Your task to perform on an android device: star an email in the gmail app Image 0: 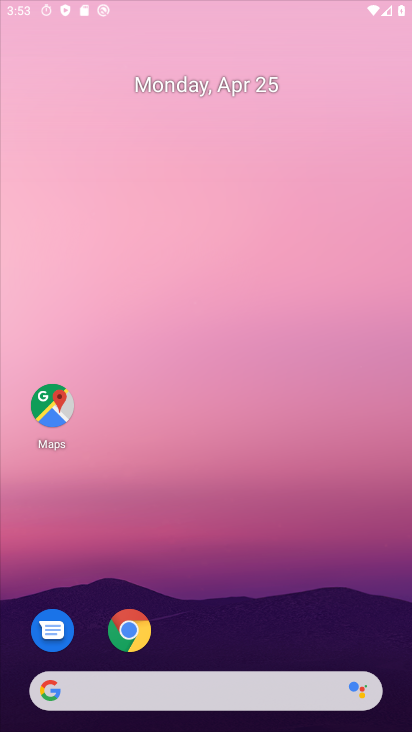
Step 0: drag from (333, 350) to (292, 78)
Your task to perform on an android device: star an email in the gmail app Image 1: 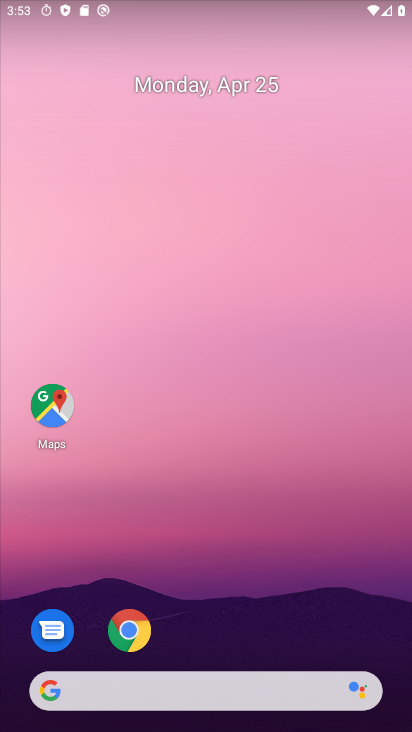
Step 1: drag from (338, 575) to (311, 44)
Your task to perform on an android device: star an email in the gmail app Image 2: 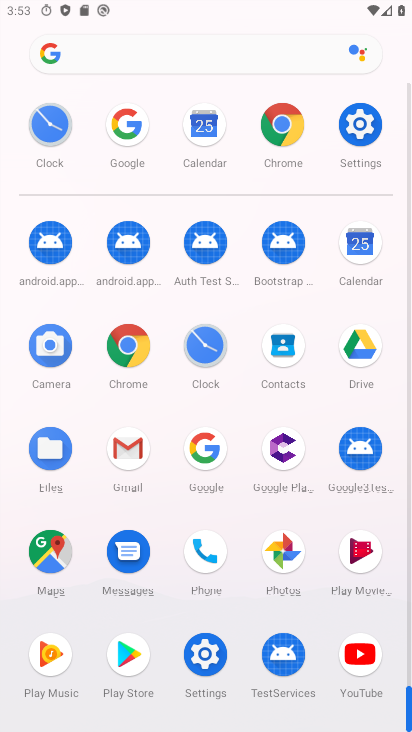
Step 2: click (135, 448)
Your task to perform on an android device: star an email in the gmail app Image 3: 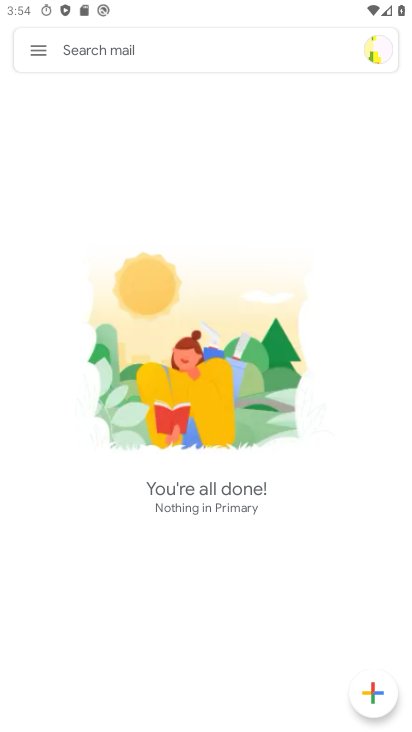
Step 3: click (43, 55)
Your task to perform on an android device: star an email in the gmail app Image 4: 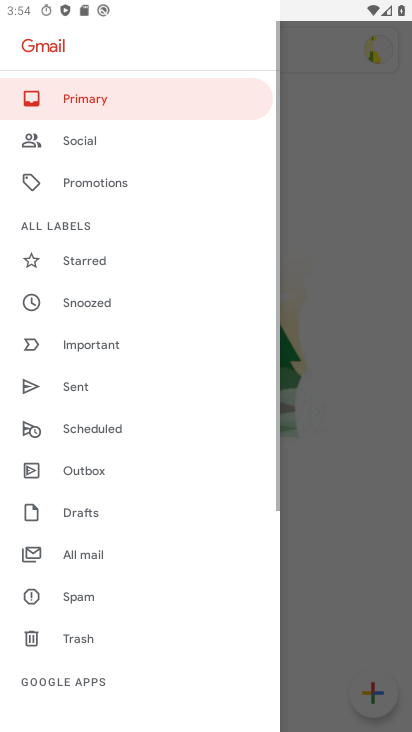
Step 4: drag from (96, 219) to (150, 594)
Your task to perform on an android device: star an email in the gmail app Image 5: 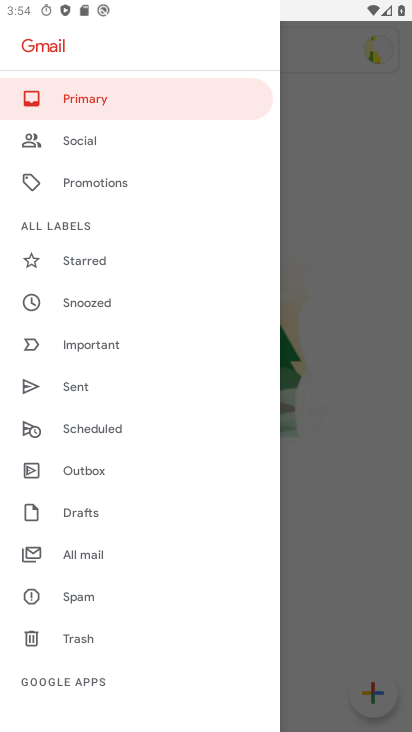
Step 5: drag from (160, 539) to (163, 172)
Your task to perform on an android device: star an email in the gmail app Image 6: 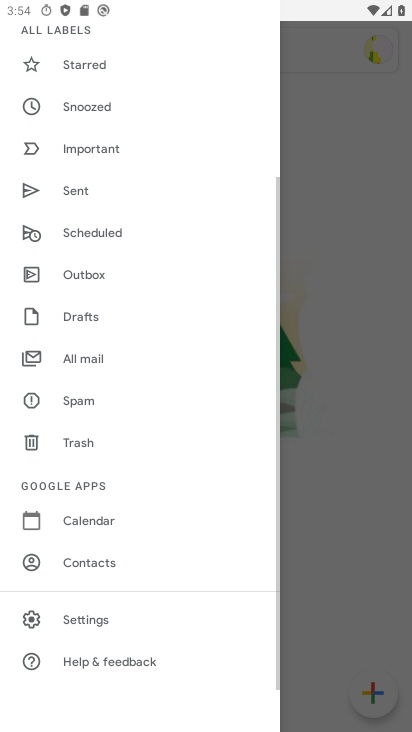
Step 6: click (78, 350)
Your task to perform on an android device: star an email in the gmail app Image 7: 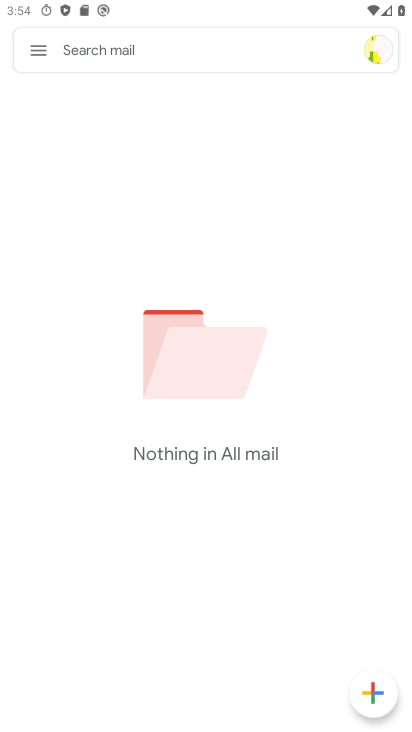
Step 7: click (197, 190)
Your task to perform on an android device: star an email in the gmail app Image 8: 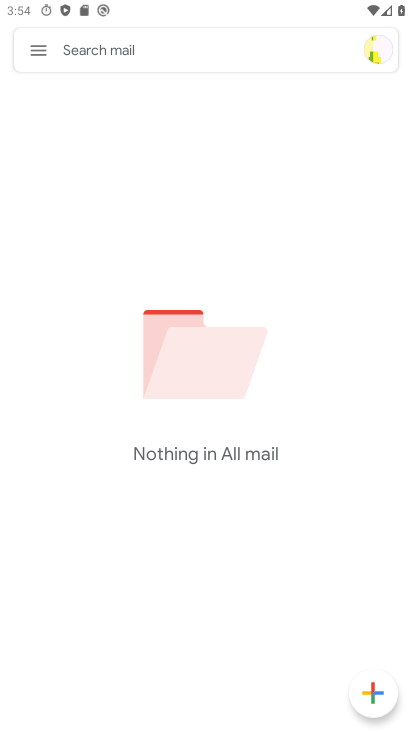
Step 8: task complete